Your task to perform on an android device: check storage Image 0: 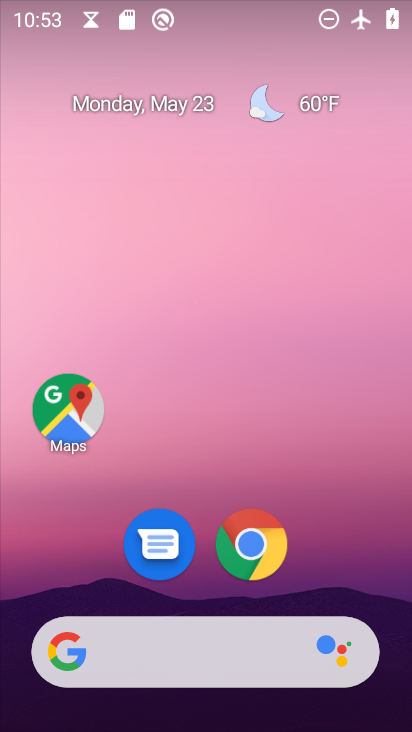
Step 0: drag from (328, 521) to (254, 326)
Your task to perform on an android device: check storage Image 1: 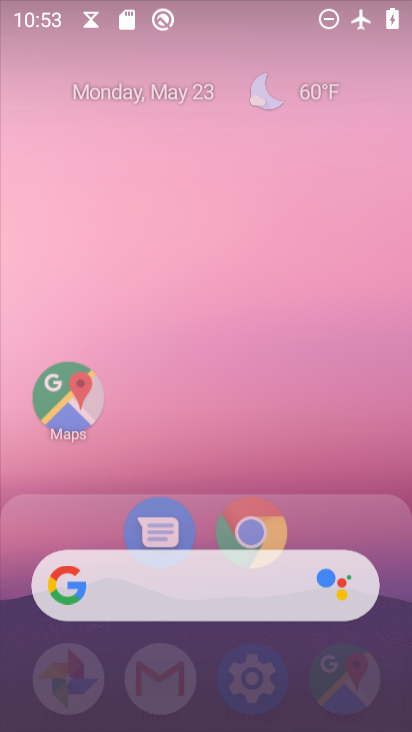
Step 1: click (142, 183)
Your task to perform on an android device: check storage Image 2: 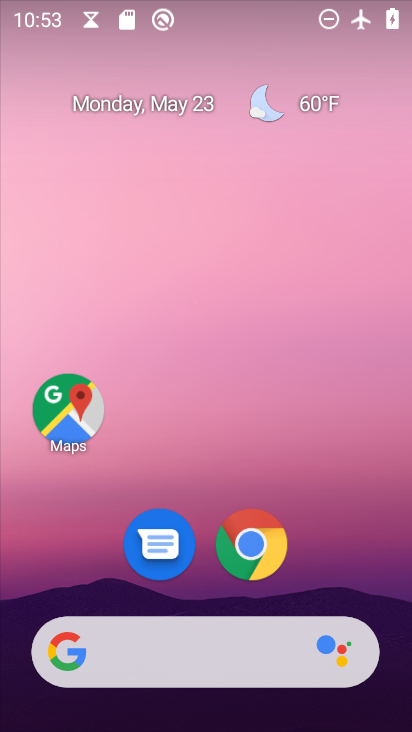
Step 2: drag from (321, 567) to (293, 55)
Your task to perform on an android device: check storage Image 3: 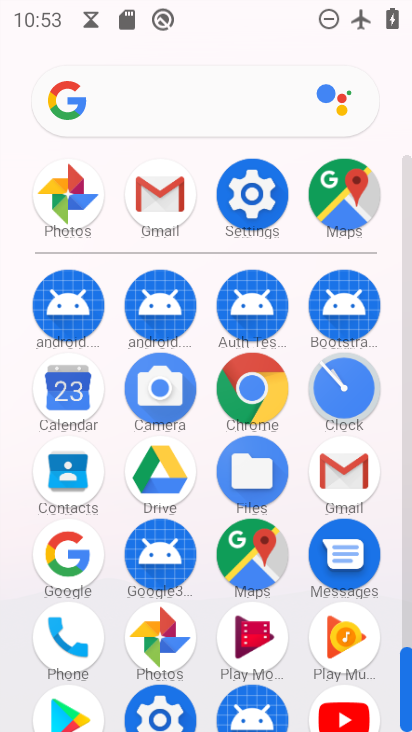
Step 3: click (264, 180)
Your task to perform on an android device: check storage Image 4: 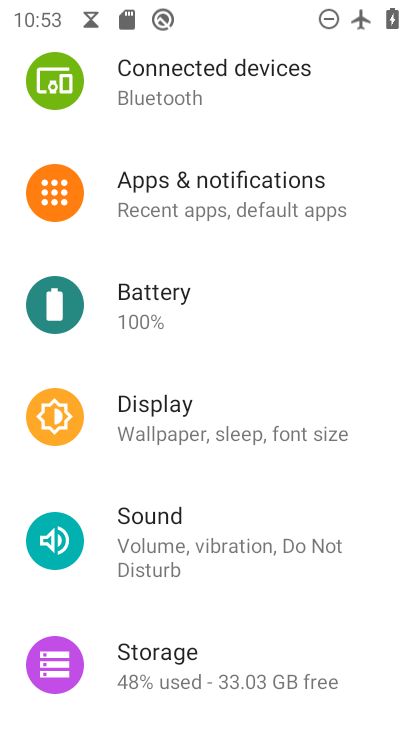
Step 4: click (195, 683)
Your task to perform on an android device: check storage Image 5: 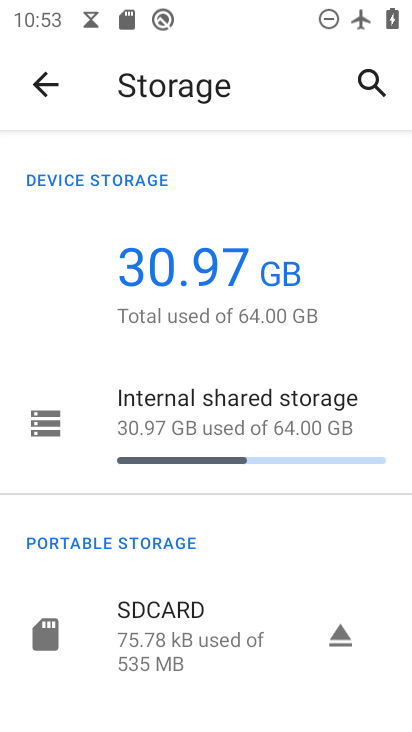
Step 5: task complete